Your task to perform on an android device: Turn on the flashlight Image 0: 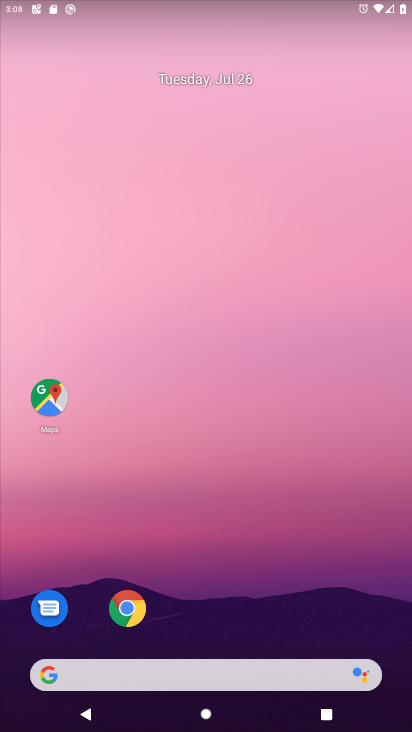
Step 0: drag from (236, 580) to (202, 128)
Your task to perform on an android device: Turn on the flashlight Image 1: 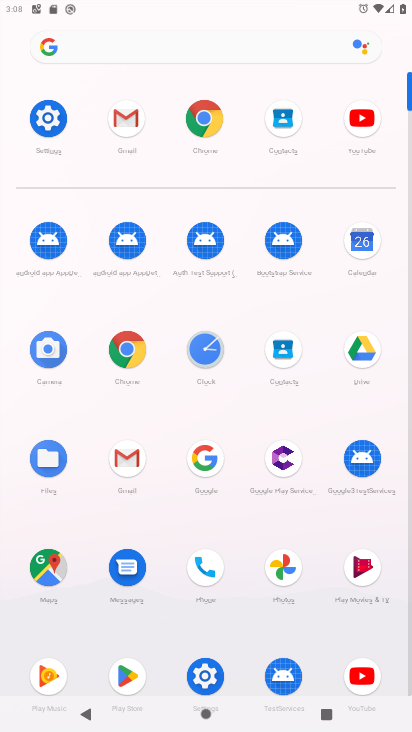
Step 1: click (49, 117)
Your task to perform on an android device: Turn on the flashlight Image 2: 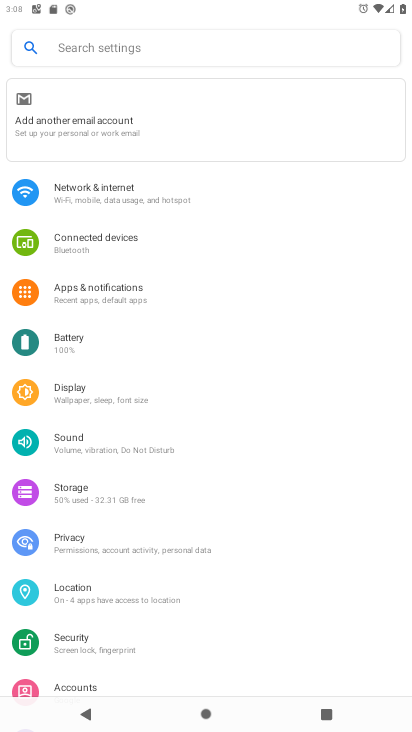
Step 2: task complete